Your task to perform on an android device: Search for seafood restaurants on Google Maps Image 0: 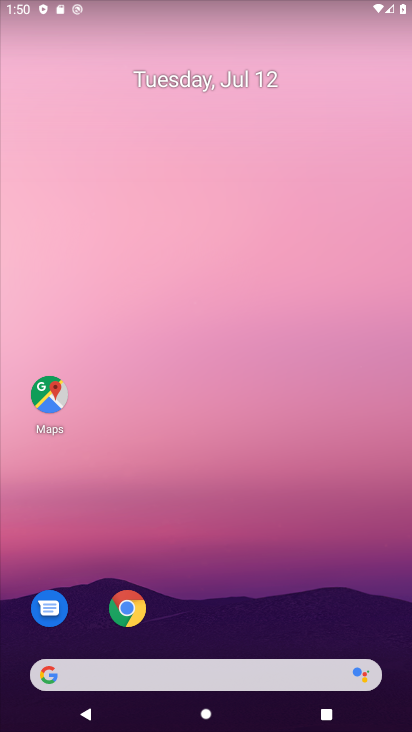
Step 0: click (130, 673)
Your task to perform on an android device: Search for seafood restaurants on Google Maps Image 1: 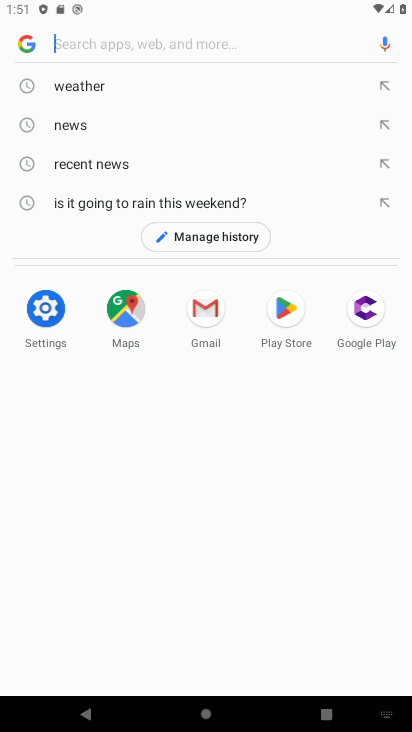
Step 1: press home button
Your task to perform on an android device: Search for seafood restaurants on Google Maps Image 2: 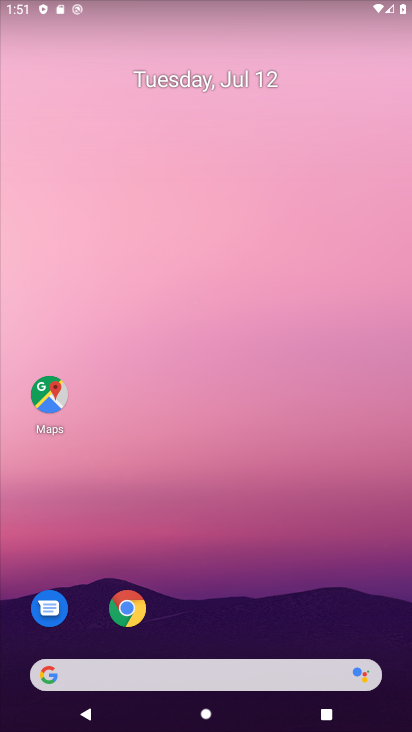
Step 2: click (51, 401)
Your task to perform on an android device: Search for seafood restaurants on Google Maps Image 3: 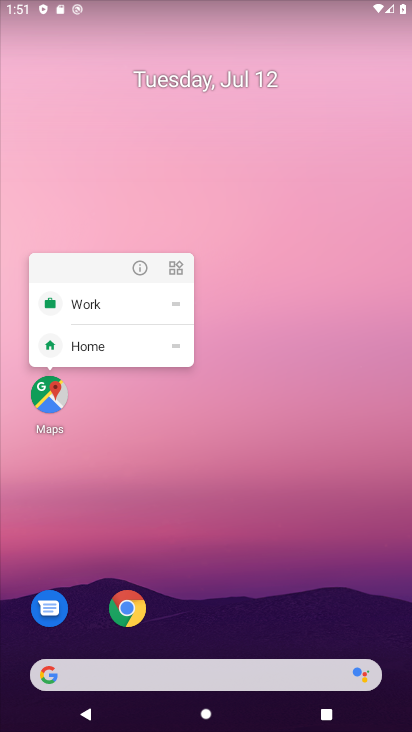
Step 3: click (49, 409)
Your task to perform on an android device: Search for seafood restaurants on Google Maps Image 4: 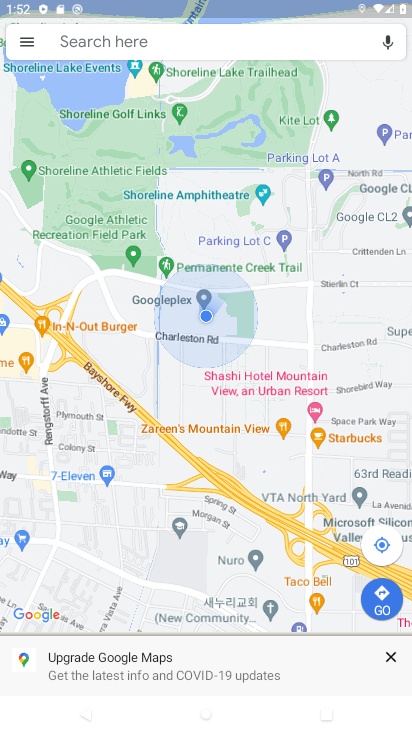
Step 4: click (218, 36)
Your task to perform on an android device: Search for seafood restaurants on Google Maps Image 5: 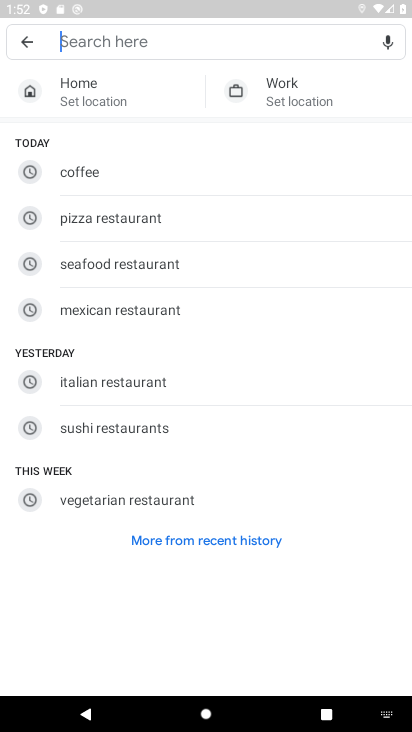
Step 5: click (110, 266)
Your task to perform on an android device: Search for seafood restaurants on Google Maps Image 6: 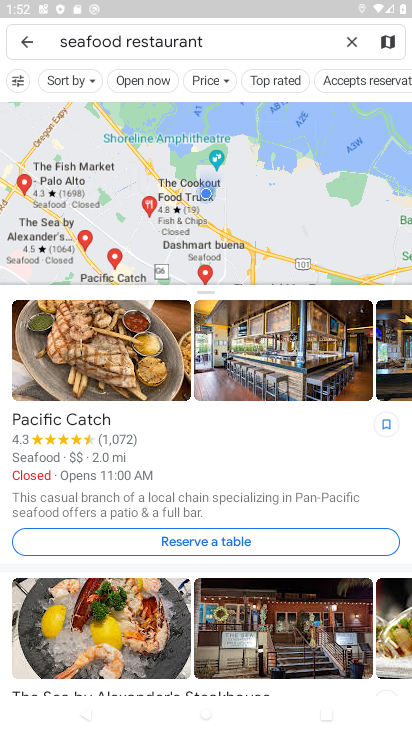
Step 6: task complete